Your task to perform on an android device: toggle wifi Image 0: 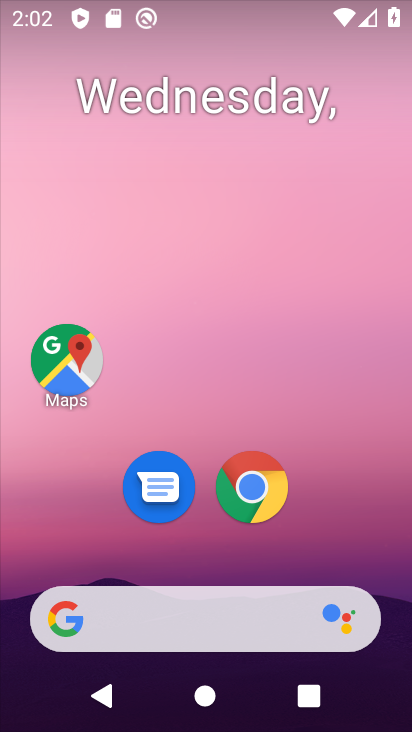
Step 0: drag from (176, 4) to (160, 653)
Your task to perform on an android device: toggle wifi Image 1: 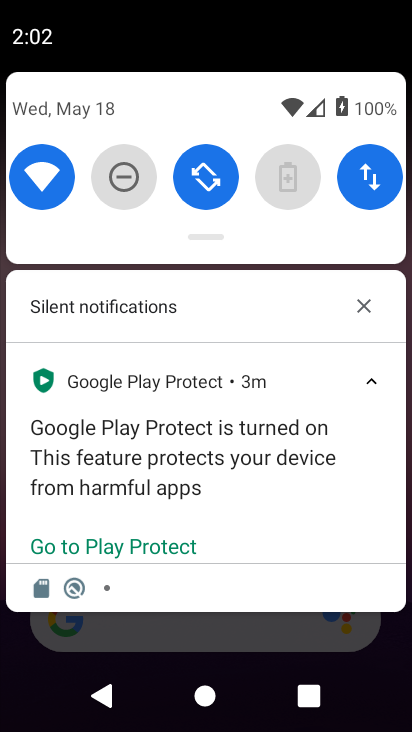
Step 1: click (52, 177)
Your task to perform on an android device: toggle wifi Image 2: 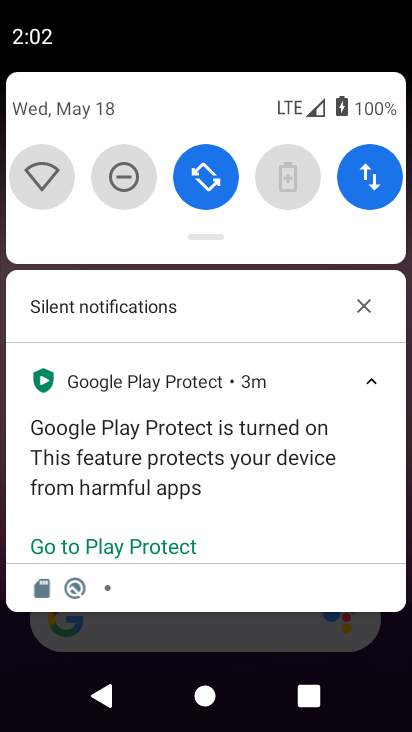
Step 2: task complete